Your task to perform on an android device: Go to Amazon Image 0: 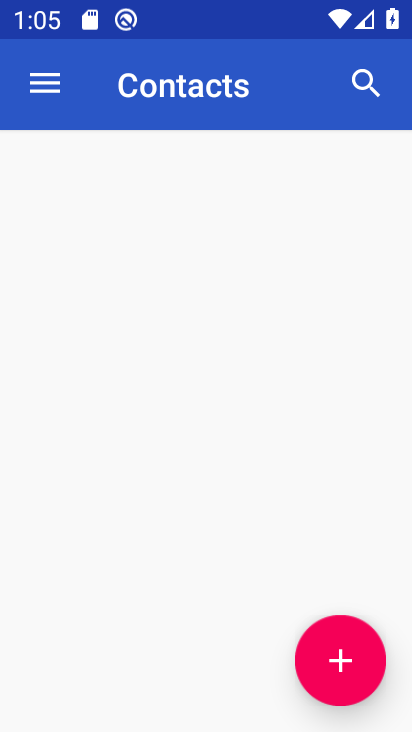
Step 0: press home button
Your task to perform on an android device: Go to Amazon Image 1: 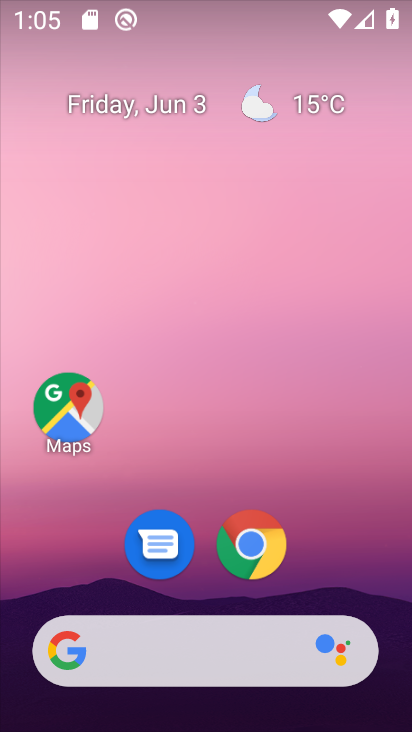
Step 1: click (234, 563)
Your task to perform on an android device: Go to Amazon Image 2: 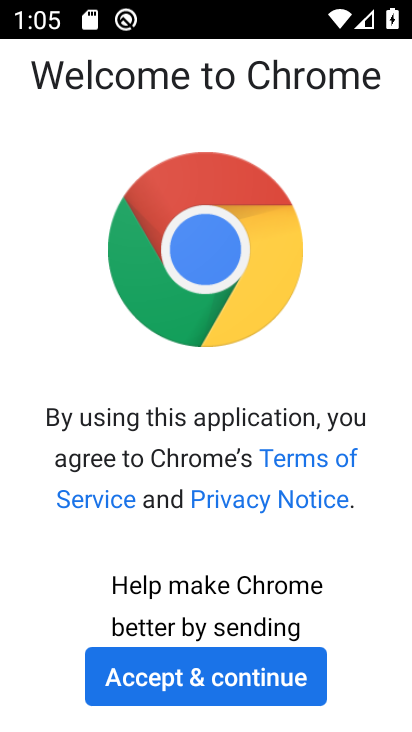
Step 2: click (246, 678)
Your task to perform on an android device: Go to Amazon Image 3: 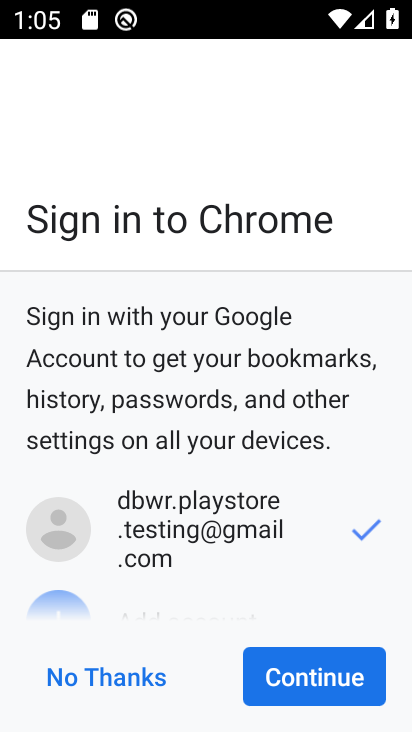
Step 3: click (246, 678)
Your task to perform on an android device: Go to Amazon Image 4: 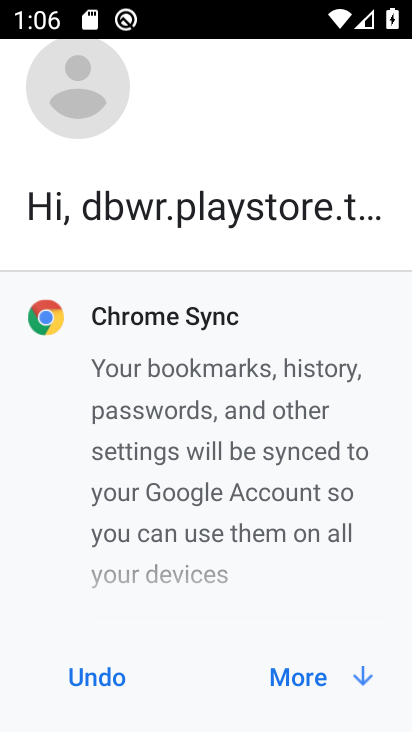
Step 4: click (280, 676)
Your task to perform on an android device: Go to Amazon Image 5: 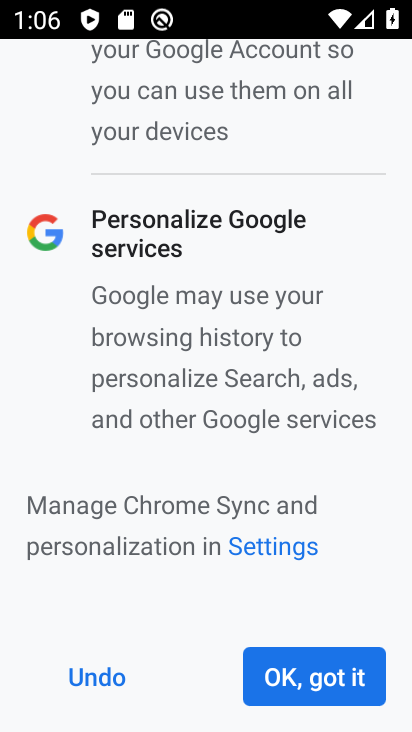
Step 5: click (327, 669)
Your task to perform on an android device: Go to Amazon Image 6: 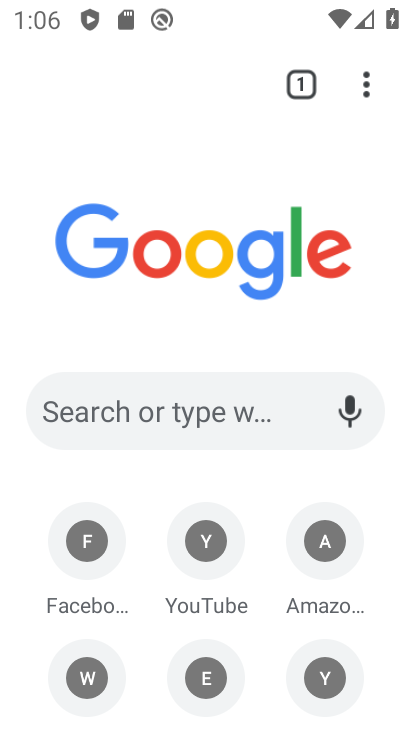
Step 6: click (341, 542)
Your task to perform on an android device: Go to Amazon Image 7: 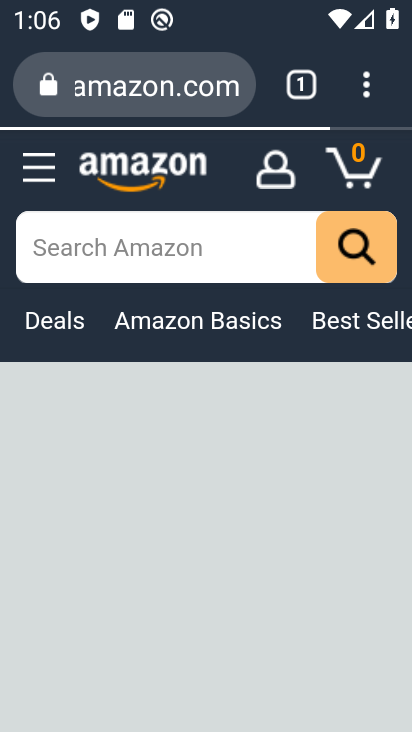
Step 7: task complete